Your task to perform on an android device: Toggle the flashlight Image 0: 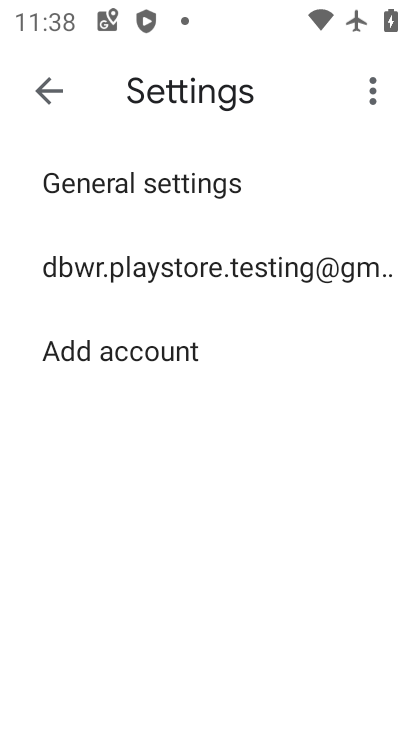
Step 0: task impossible